Your task to perform on an android device: Go to network settings Image 0: 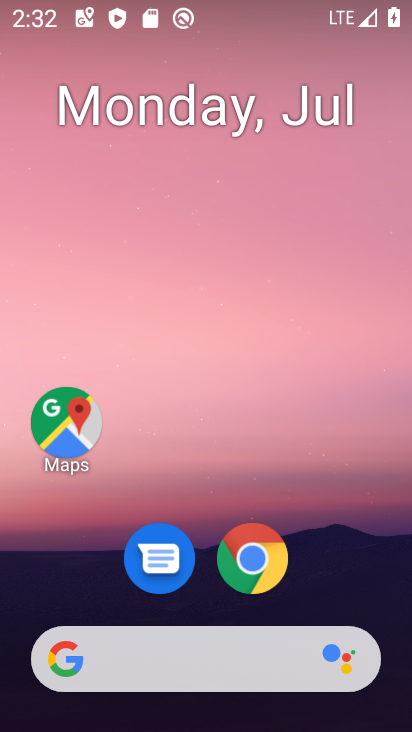
Step 0: drag from (380, 553) to (344, 107)
Your task to perform on an android device: Go to network settings Image 1: 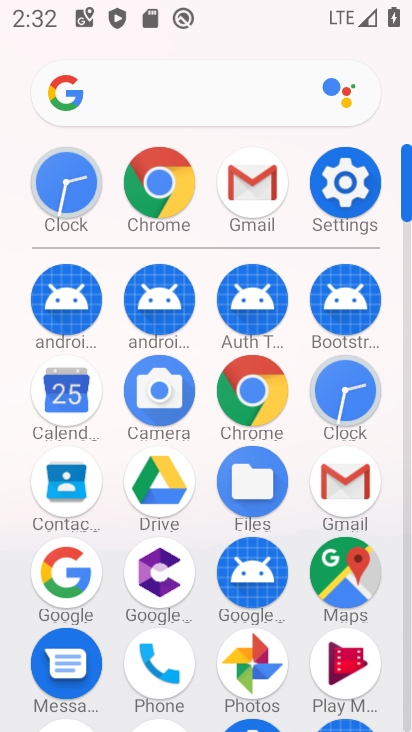
Step 1: click (340, 202)
Your task to perform on an android device: Go to network settings Image 2: 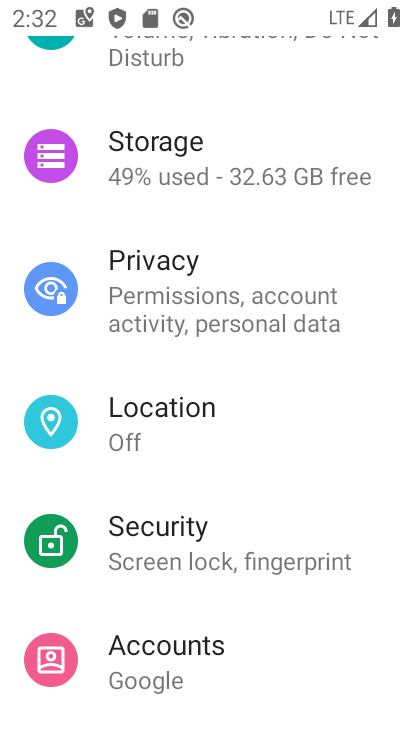
Step 2: drag from (354, 478) to (352, 387)
Your task to perform on an android device: Go to network settings Image 3: 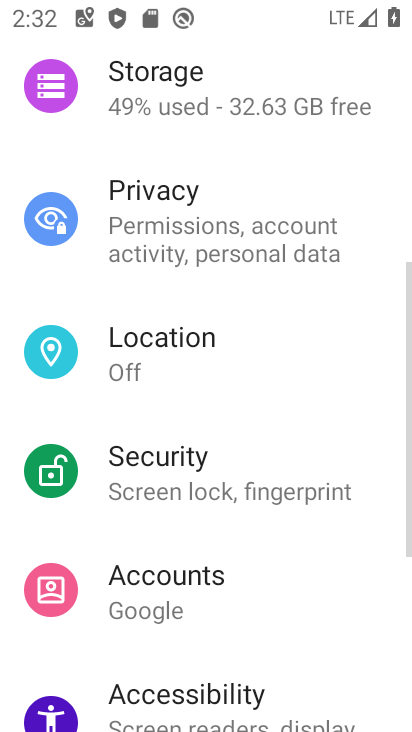
Step 3: drag from (348, 586) to (347, 467)
Your task to perform on an android device: Go to network settings Image 4: 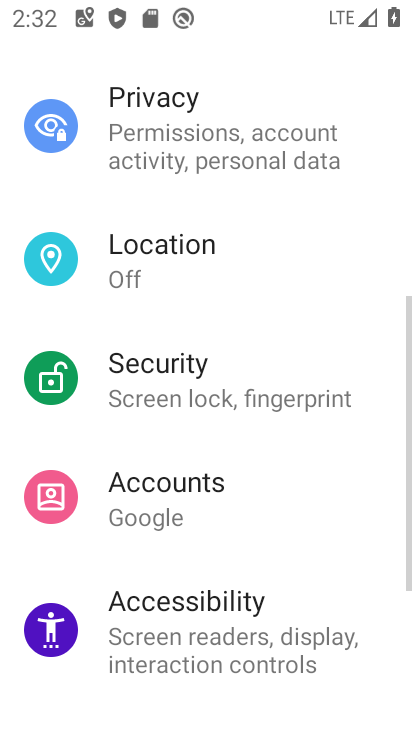
Step 4: drag from (360, 631) to (345, 466)
Your task to perform on an android device: Go to network settings Image 5: 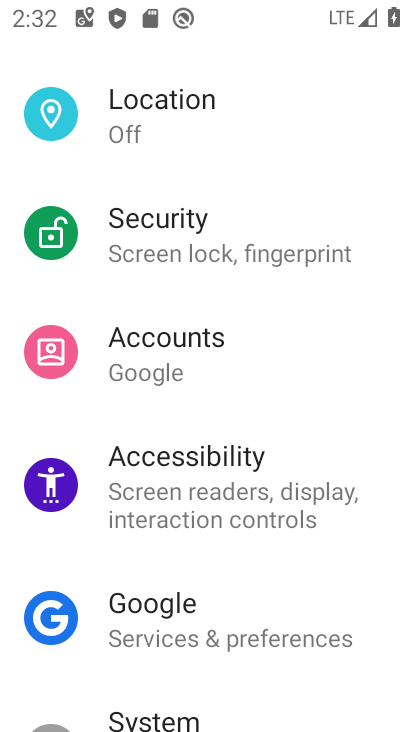
Step 5: drag from (356, 632) to (360, 499)
Your task to perform on an android device: Go to network settings Image 6: 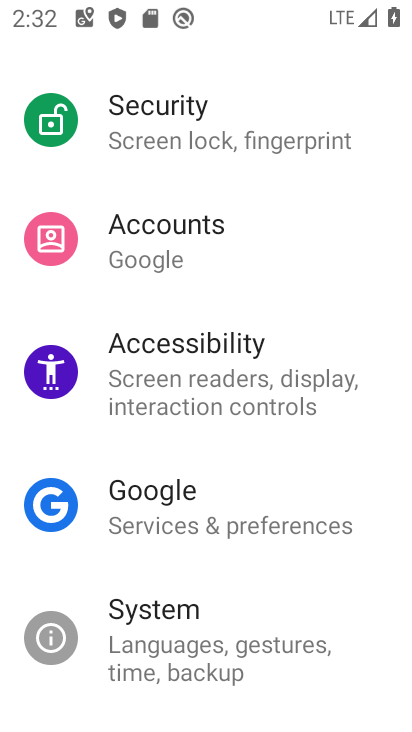
Step 6: drag from (370, 670) to (373, 510)
Your task to perform on an android device: Go to network settings Image 7: 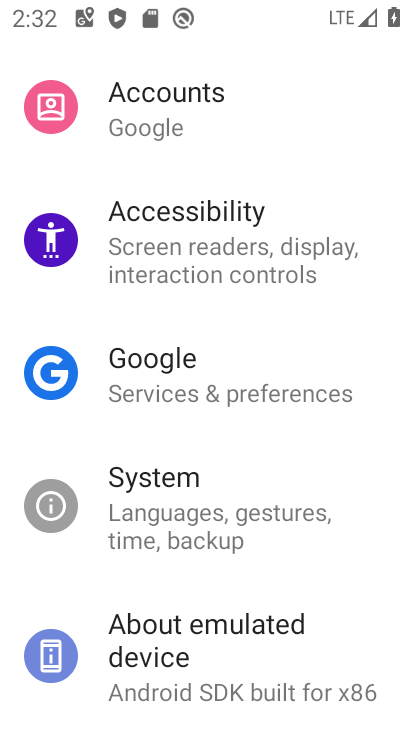
Step 7: drag from (366, 573) to (358, 440)
Your task to perform on an android device: Go to network settings Image 8: 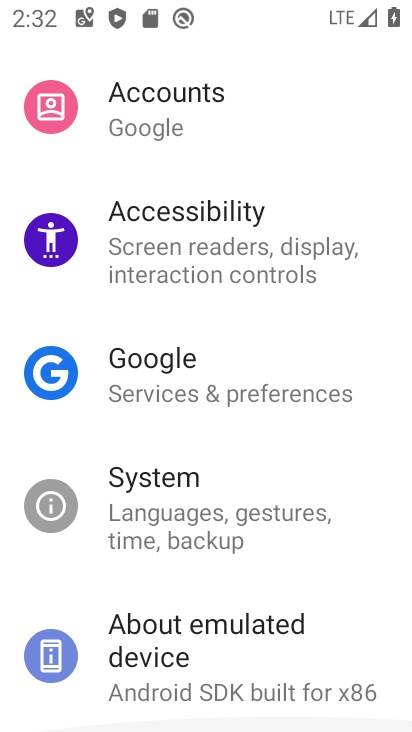
Step 8: drag from (357, 324) to (372, 401)
Your task to perform on an android device: Go to network settings Image 9: 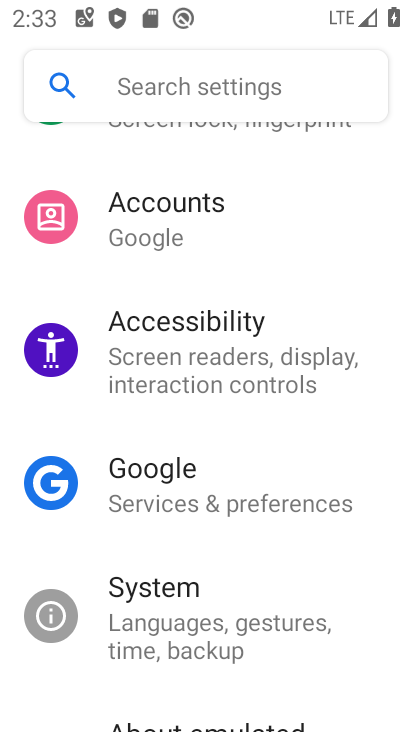
Step 9: drag from (369, 251) to (373, 383)
Your task to perform on an android device: Go to network settings Image 10: 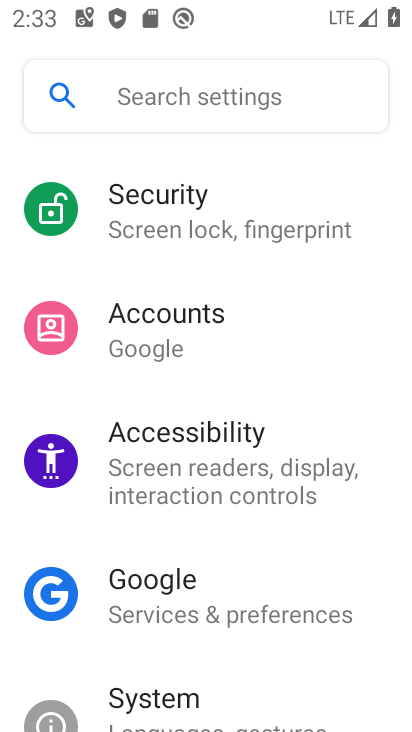
Step 10: drag from (370, 283) to (361, 427)
Your task to perform on an android device: Go to network settings Image 11: 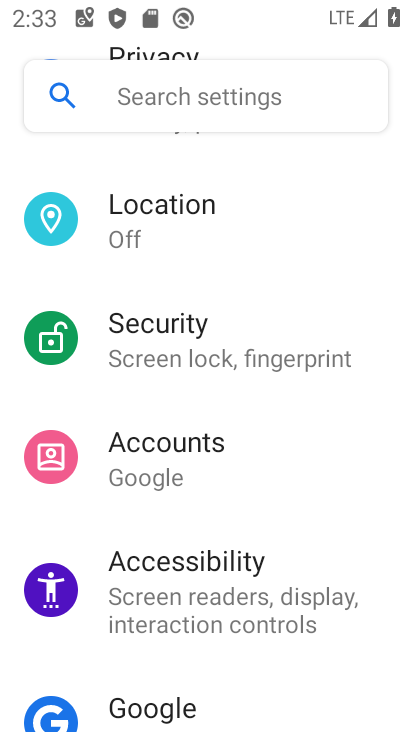
Step 11: drag from (340, 272) to (340, 460)
Your task to perform on an android device: Go to network settings Image 12: 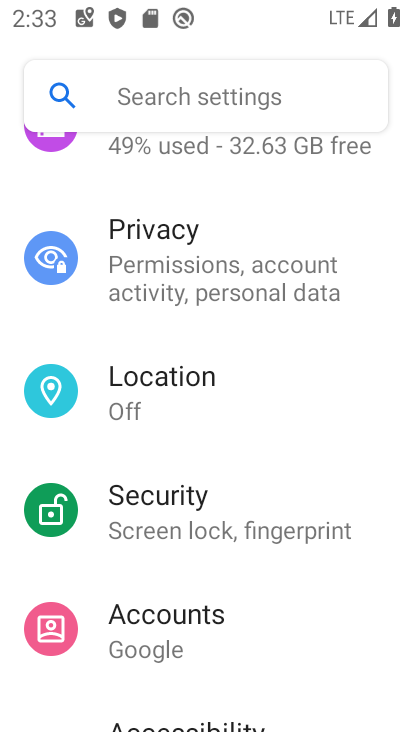
Step 12: drag from (366, 195) to (384, 509)
Your task to perform on an android device: Go to network settings Image 13: 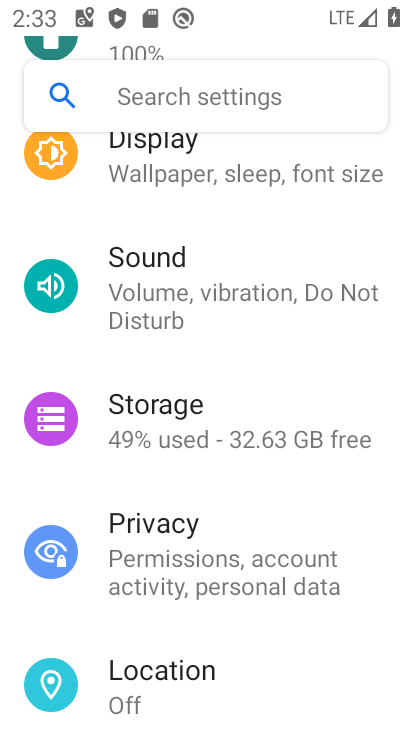
Step 13: drag from (355, 192) to (358, 410)
Your task to perform on an android device: Go to network settings Image 14: 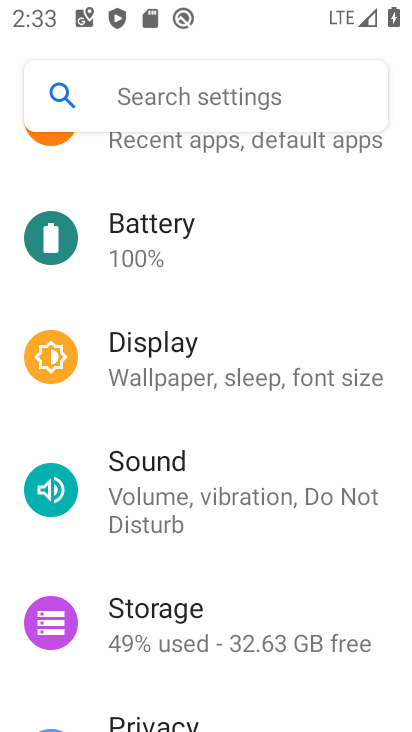
Step 14: drag from (335, 173) to (342, 492)
Your task to perform on an android device: Go to network settings Image 15: 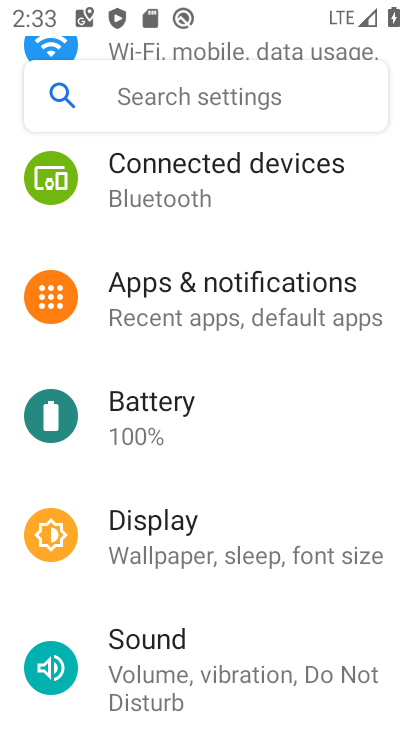
Step 15: drag from (345, 178) to (344, 398)
Your task to perform on an android device: Go to network settings Image 16: 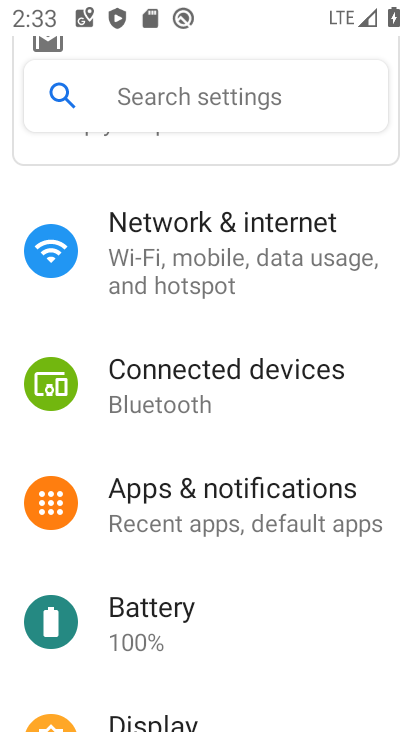
Step 16: click (314, 263)
Your task to perform on an android device: Go to network settings Image 17: 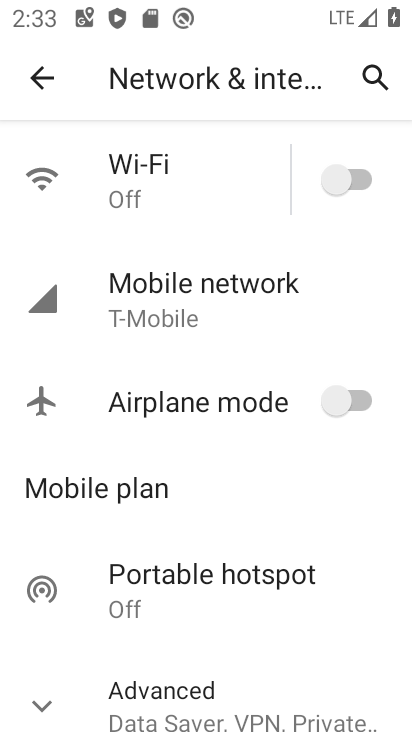
Step 17: task complete